Your task to perform on an android device: see sites visited before in the chrome app Image 0: 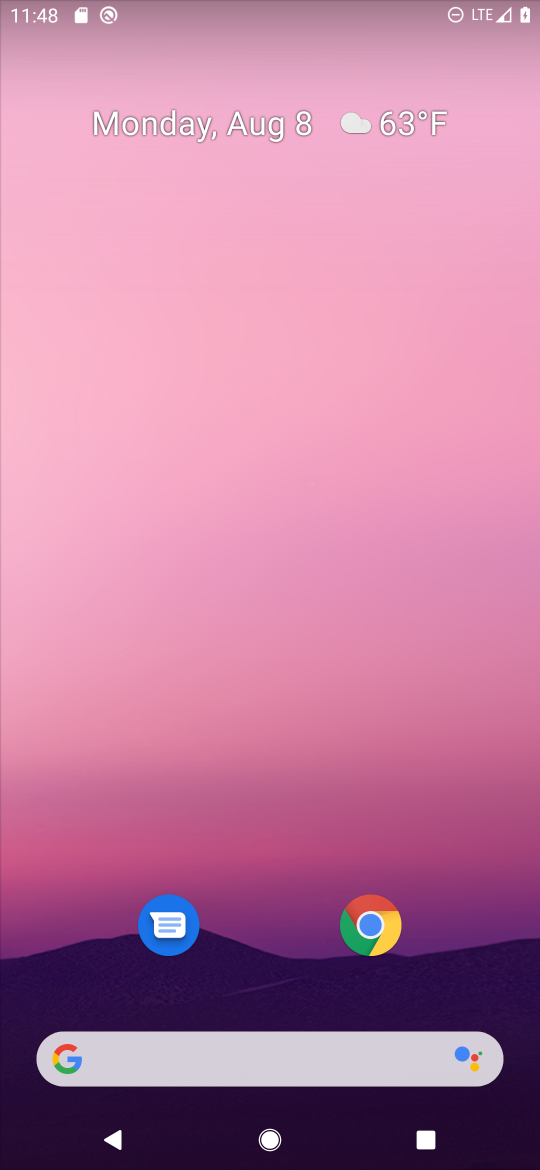
Step 0: drag from (290, 959) to (440, 45)
Your task to perform on an android device: see sites visited before in the chrome app Image 1: 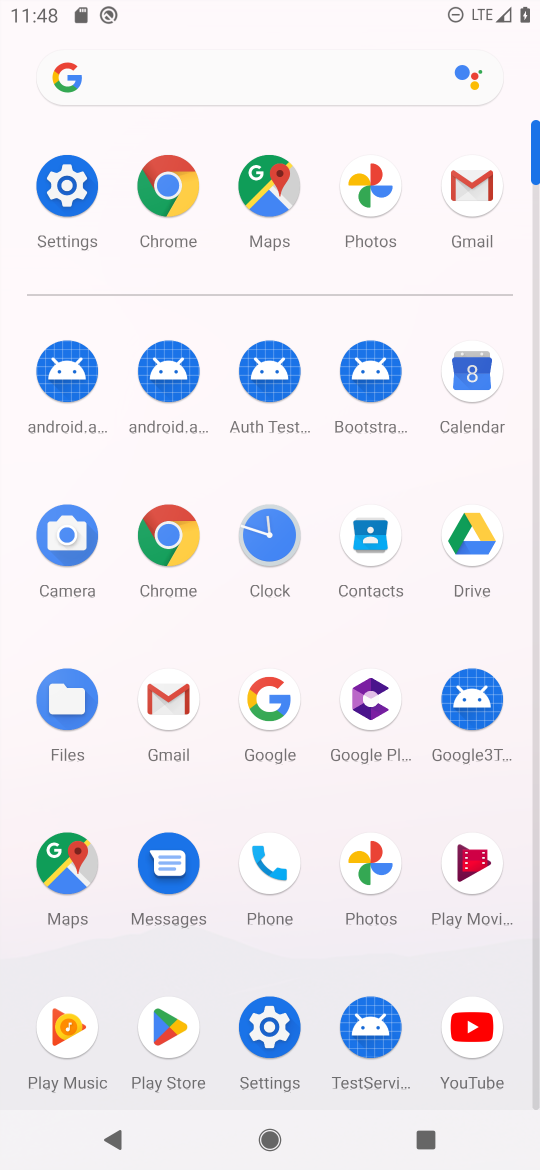
Step 1: click (165, 536)
Your task to perform on an android device: see sites visited before in the chrome app Image 2: 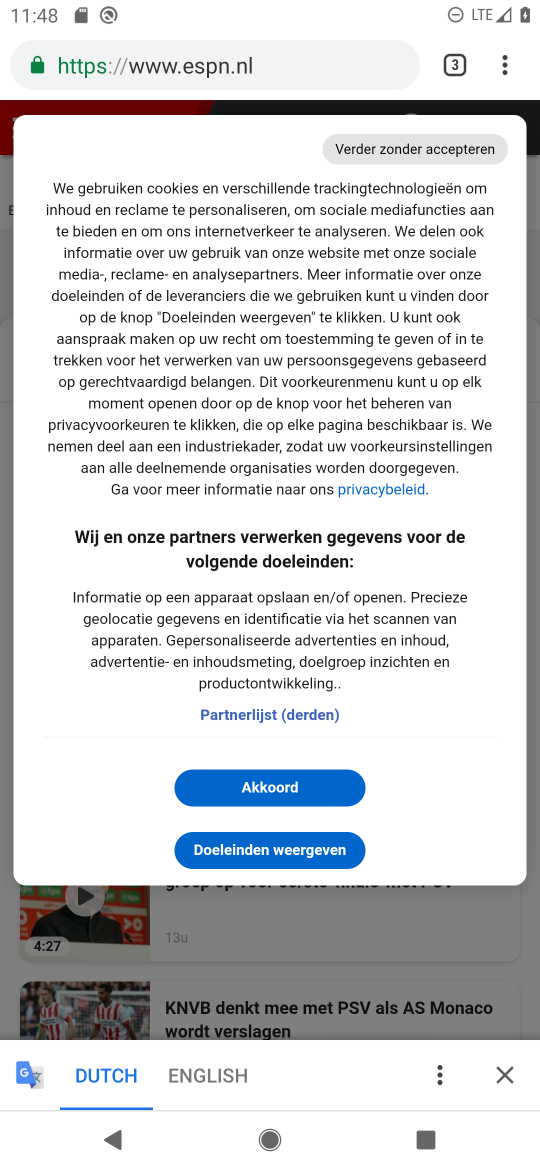
Step 2: task complete